Your task to perform on an android device: Find coffee shops on Maps Image 0: 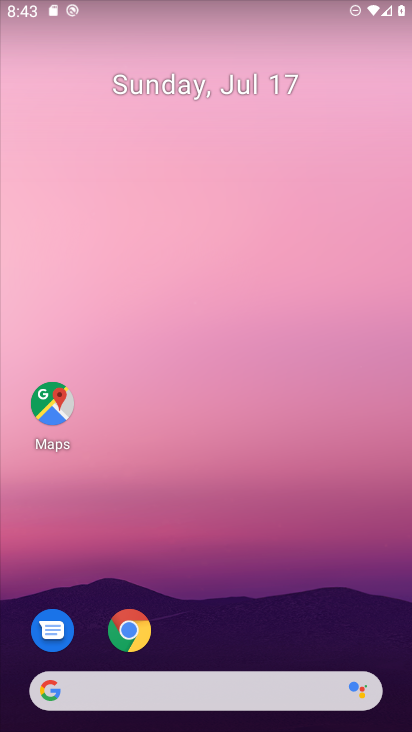
Step 0: drag from (300, 611) to (401, 323)
Your task to perform on an android device: Find coffee shops on Maps Image 1: 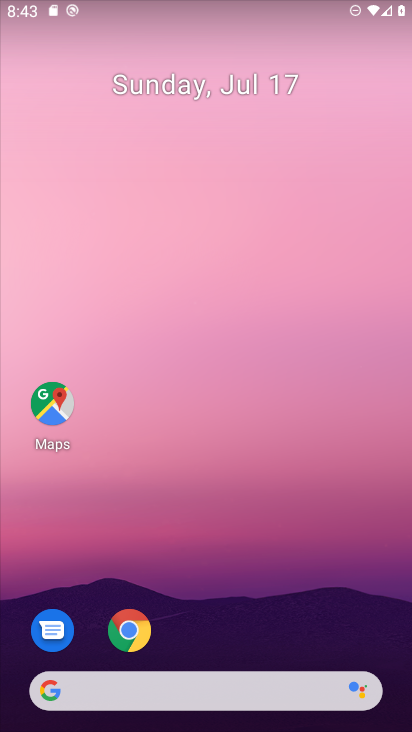
Step 1: click (48, 424)
Your task to perform on an android device: Find coffee shops on Maps Image 2: 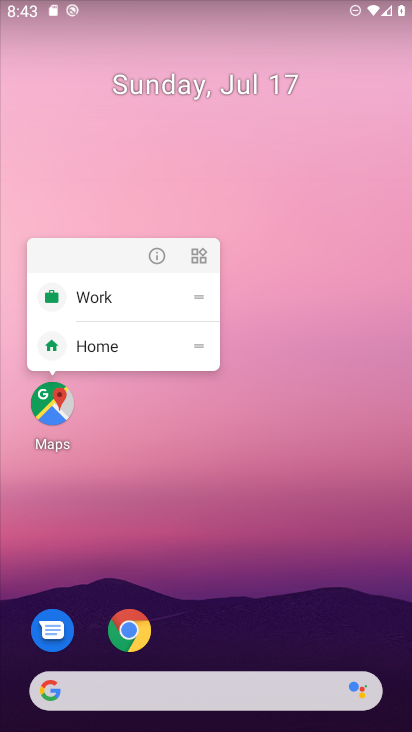
Step 2: click (55, 403)
Your task to perform on an android device: Find coffee shops on Maps Image 3: 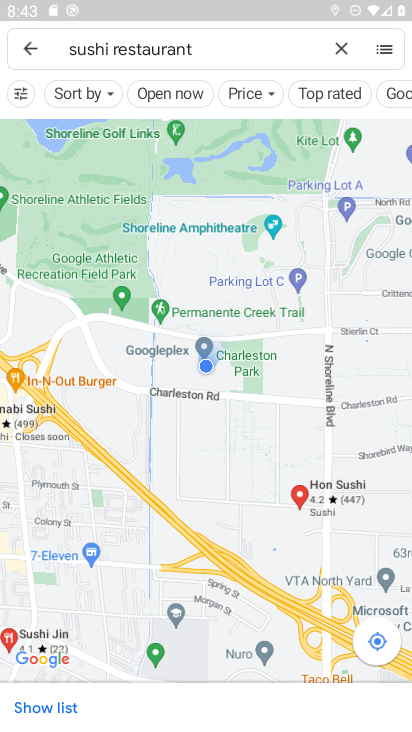
Step 3: click (346, 37)
Your task to perform on an android device: Find coffee shops on Maps Image 4: 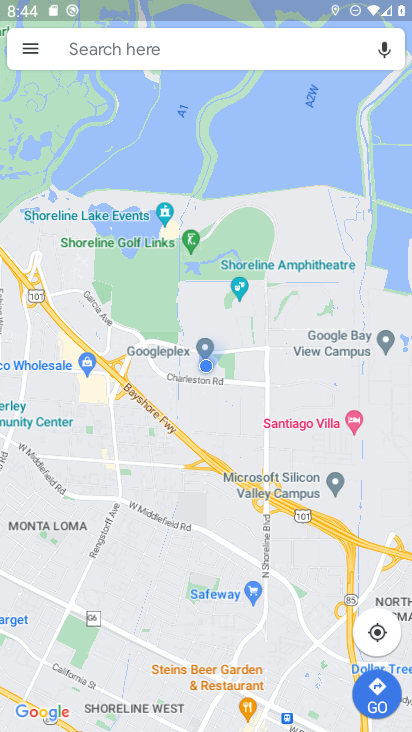
Step 4: click (284, 46)
Your task to perform on an android device: Find coffee shops on Maps Image 5: 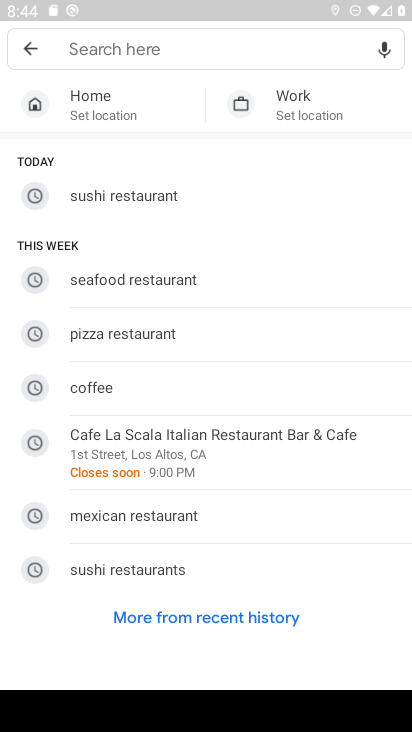
Step 5: type " coffee shops "
Your task to perform on an android device: Find coffee shops on Maps Image 6: 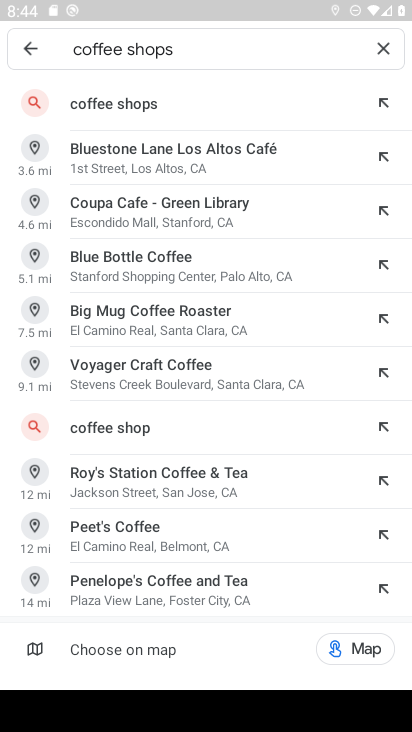
Step 6: click (108, 108)
Your task to perform on an android device: Find coffee shops on Maps Image 7: 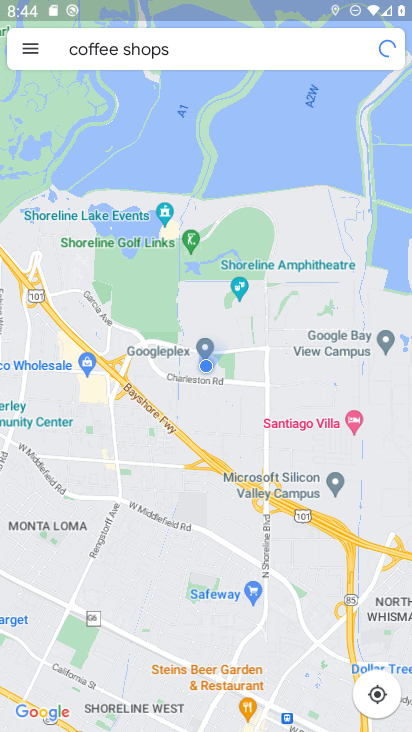
Step 7: task complete